Your task to perform on an android device: move a message to another label in the gmail app Image 0: 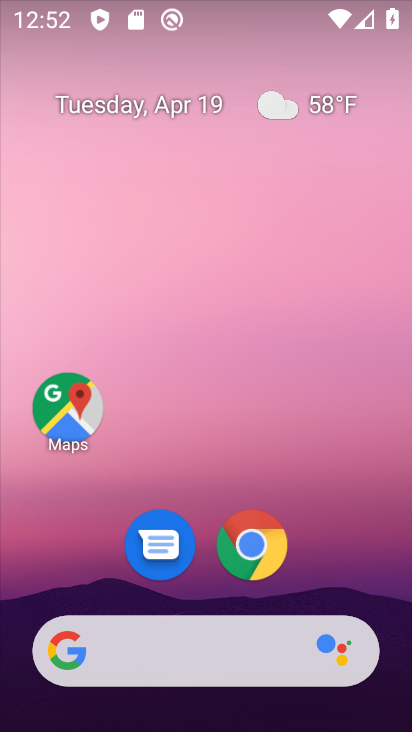
Step 0: drag from (205, 439) to (261, 54)
Your task to perform on an android device: move a message to another label in the gmail app Image 1: 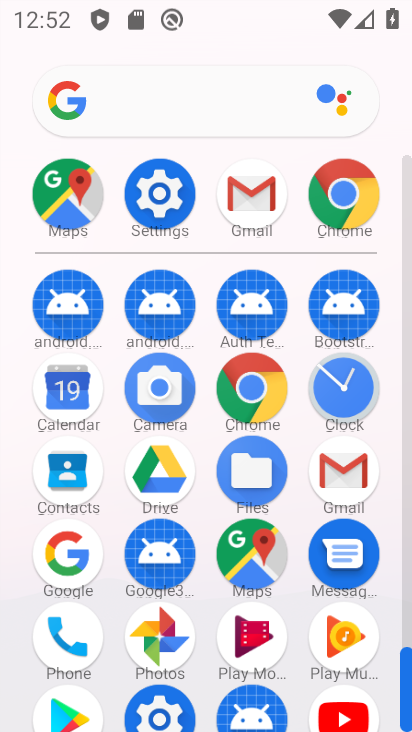
Step 1: click (249, 192)
Your task to perform on an android device: move a message to another label in the gmail app Image 2: 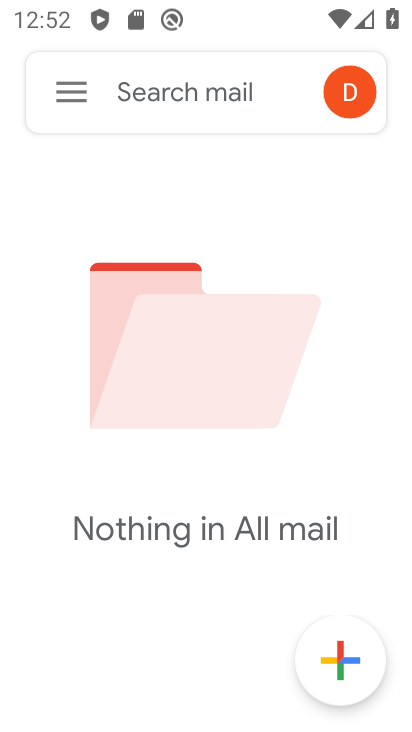
Step 2: task complete